Your task to perform on an android device: Open wifi settings Image 0: 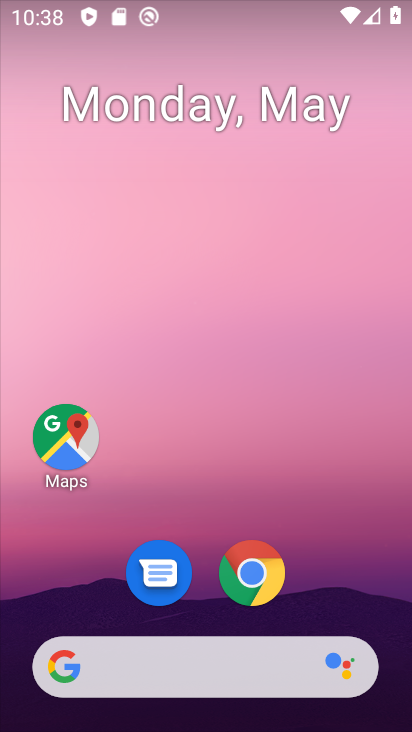
Step 0: drag from (213, 597) to (213, 217)
Your task to perform on an android device: Open wifi settings Image 1: 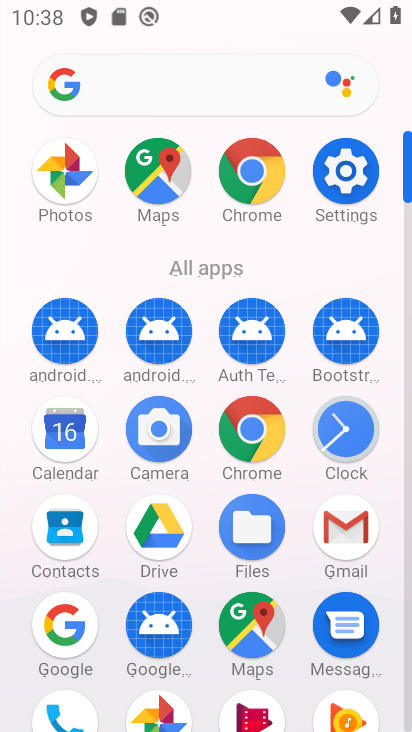
Step 1: click (351, 178)
Your task to perform on an android device: Open wifi settings Image 2: 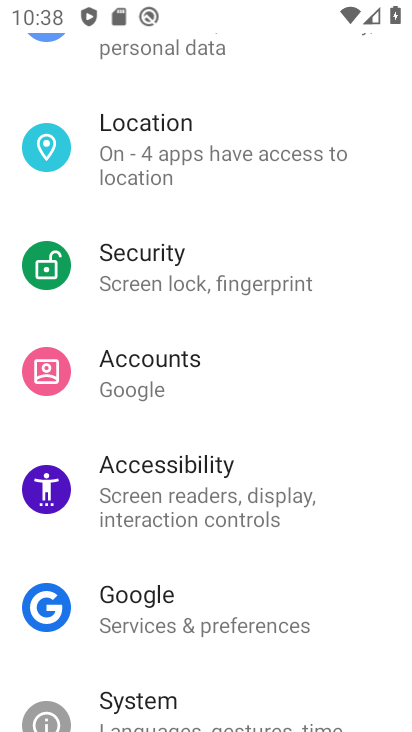
Step 2: drag from (195, 102) to (264, 499)
Your task to perform on an android device: Open wifi settings Image 3: 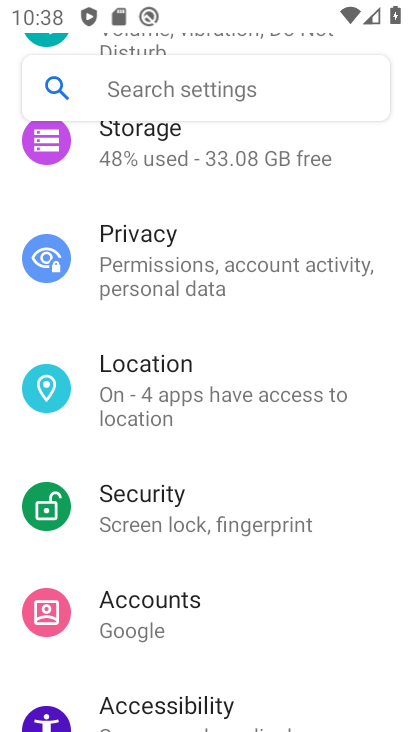
Step 3: drag from (220, 167) to (243, 506)
Your task to perform on an android device: Open wifi settings Image 4: 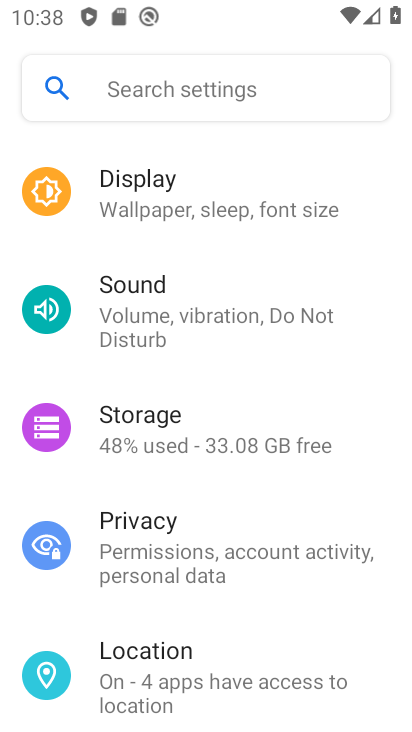
Step 4: drag from (211, 172) to (269, 515)
Your task to perform on an android device: Open wifi settings Image 5: 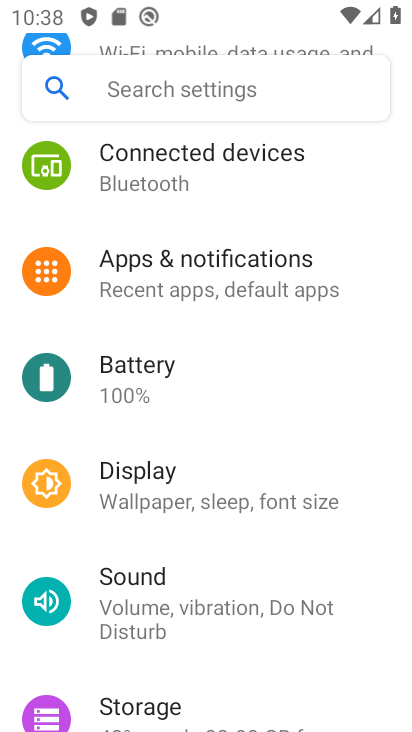
Step 5: drag from (187, 159) to (247, 479)
Your task to perform on an android device: Open wifi settings Image 6: 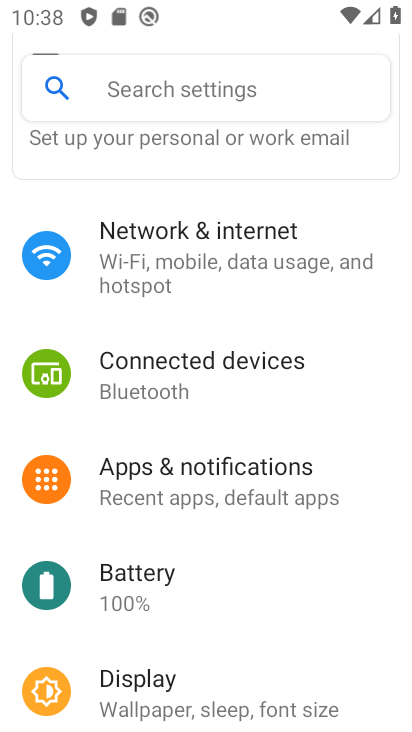
Step 6: click (198, 254)
Your task to perform on an android device: Open wifi settings Image 7: 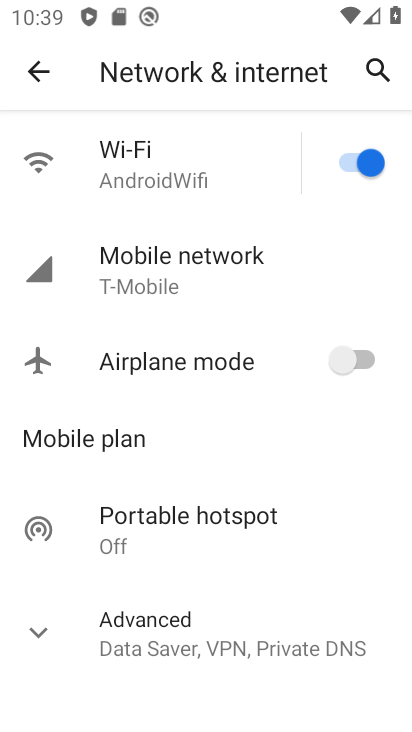
Step 7: click (184, 163)
Your task to perform on an android device: Open wifi settings Image 8: 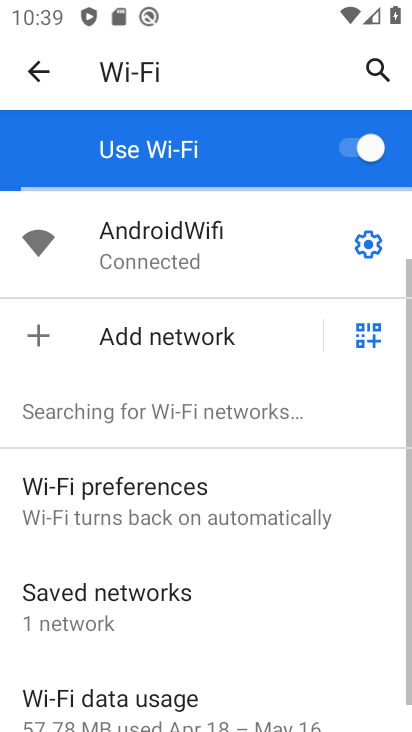
Step 8: click (365, 240)
Your task to perform on an android device: Open wifi settings Image 9: 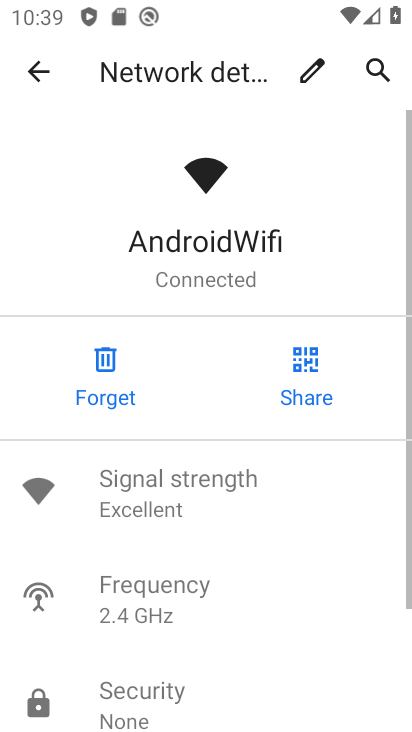
Step 9: drag from (271, 652) to (228, 325)
Your task to perform on an android device: Open wifi settings Image 10: 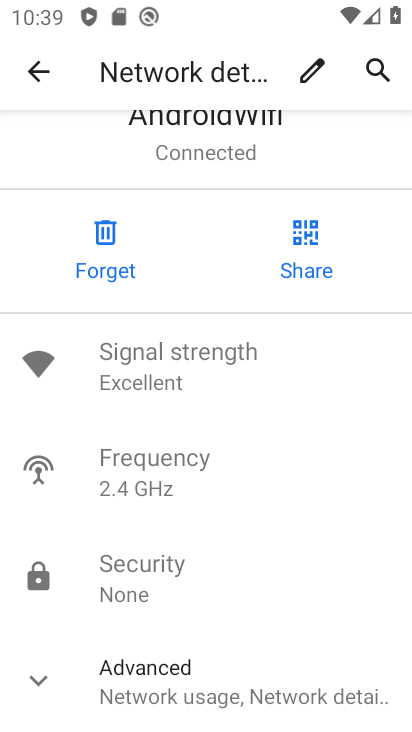
Step 10: drag from (278, 567) to (248, 289)
Your task to perform on an android device: Open wifi settings Image 11: 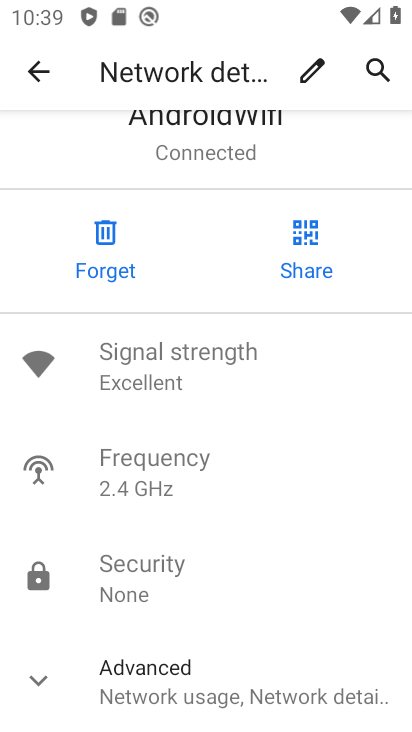
Step 11: click (209, 687)
Your task to perform on an android device: Open wifi settings Image 12: 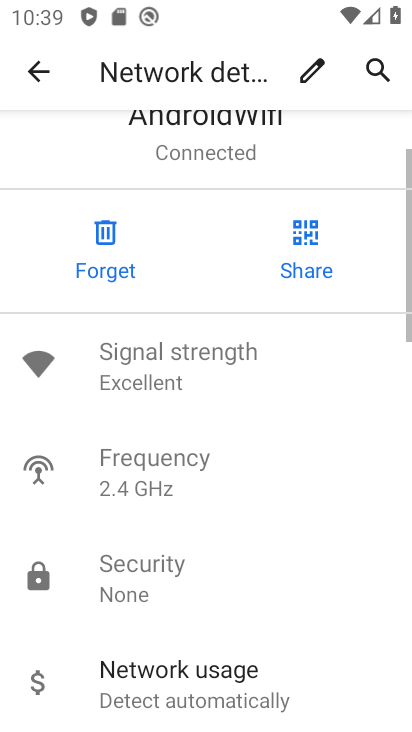
Step 12: task complete